Your task to perform on an android device: change timer sound Image 0: 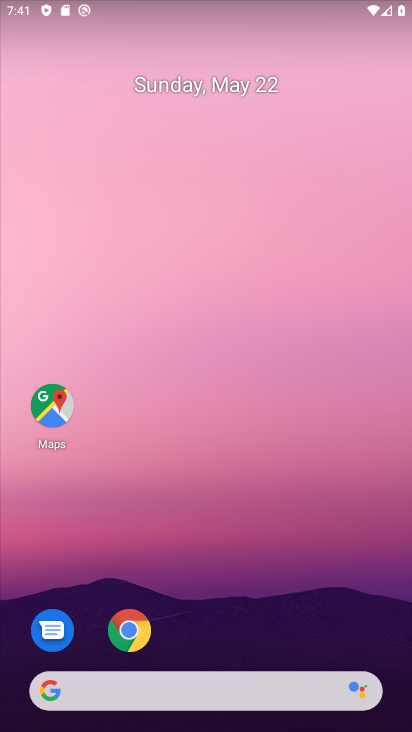
Step 0: drag from (261, 648) to (271, 153)
Your task to perform on an android device: change timer sound Image 1: 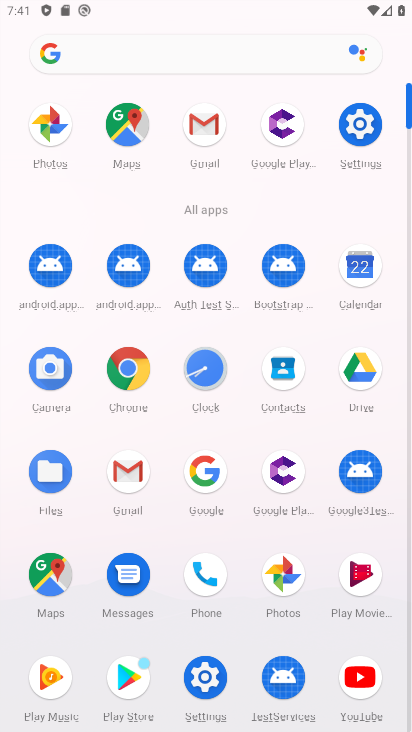
Step 1: click (370, 145)
Your task to perform on an android device: change timer sound Image 2: 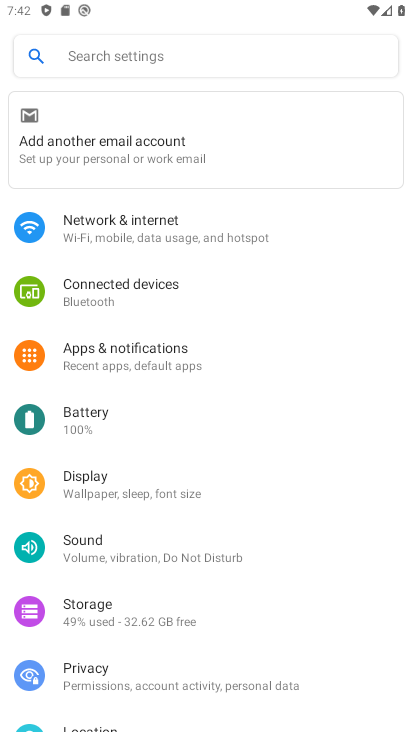
Step 2: press home button
Your task to perform on an android device: change timer sound Image 3: 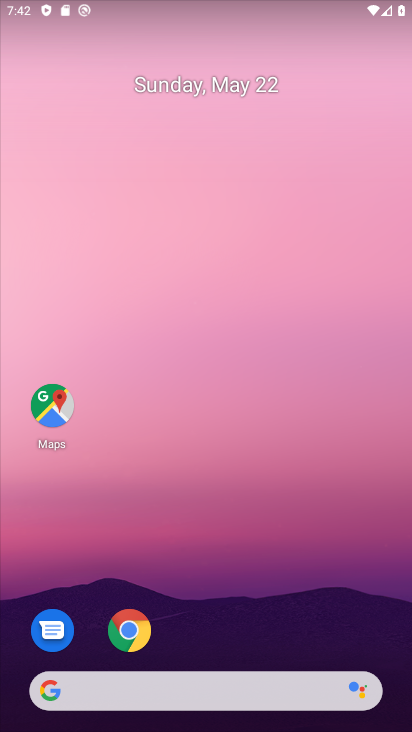
Step 3: drag from (221, 638) to (243, 52)
Your task to perform on an android device: change timer sound Image 4: 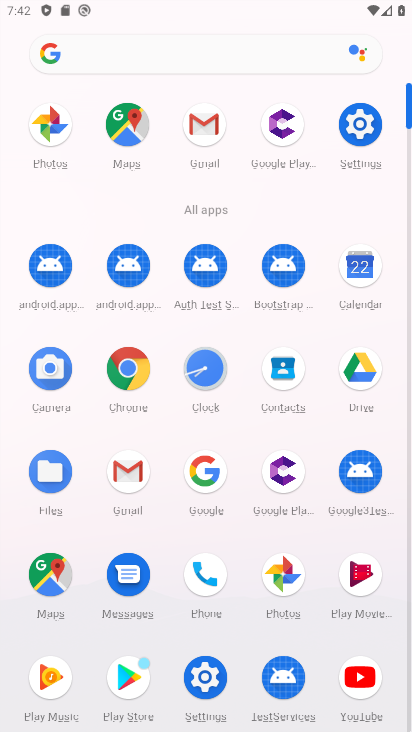
Step 4: click (374, 154)
Your task to perform on an android device: change timer sound Image 5: 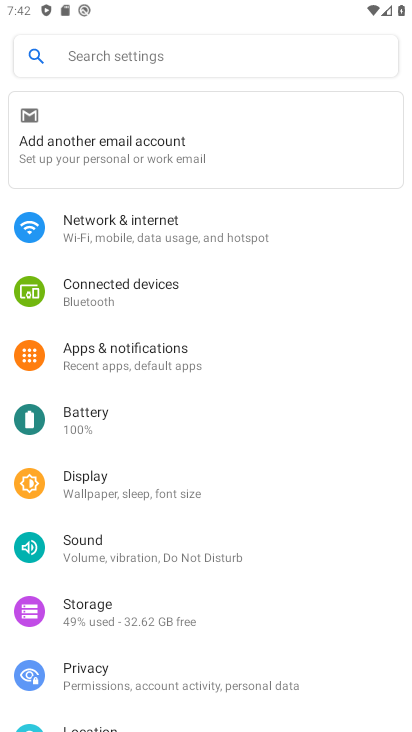
Step 5: press home button
Your task to perform on an android device: change timer sound Image 6: 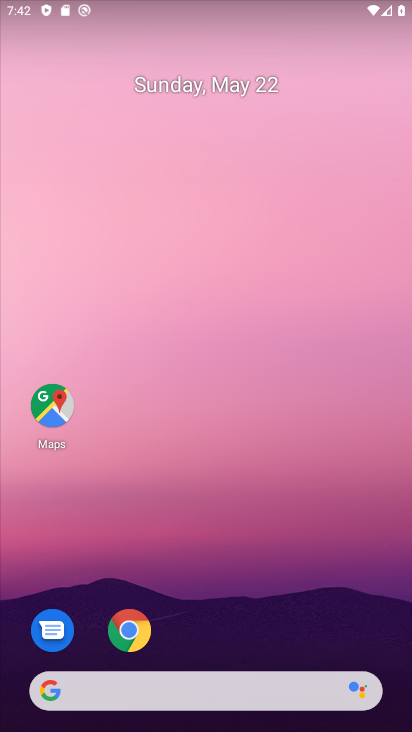
Step 6: drag from (239, 642) to (256, 83)
Your task to perform on an android device: change timer sound Image 7: 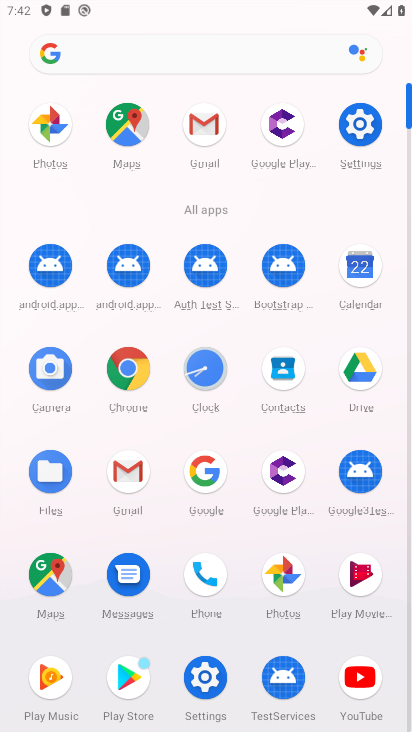
Step 7: click (211, 359)
Your task to perform on an android device: change timer sound Image 8: 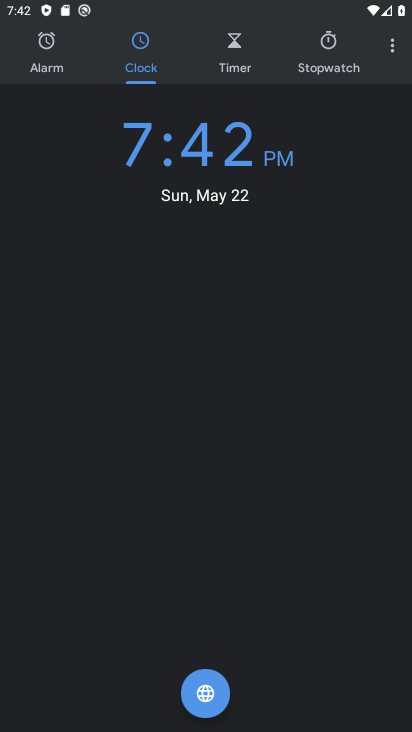
Step 8: click (394, 47)
Your task to perform on an android device: change timer sound Image 9: 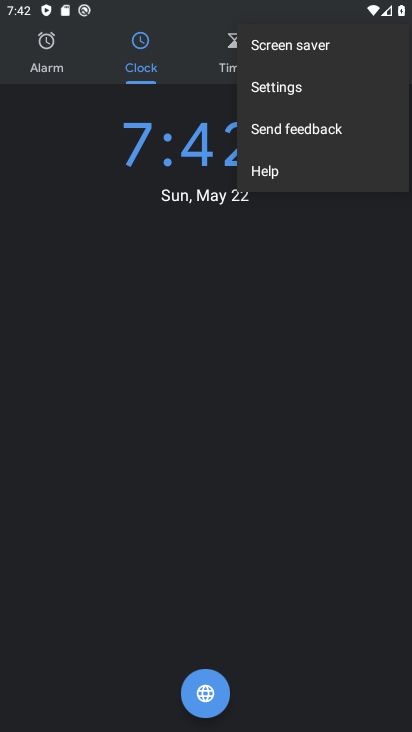
Step 9: click (323, 82)
Your task to perform on an android device: change timer sound Image 10: 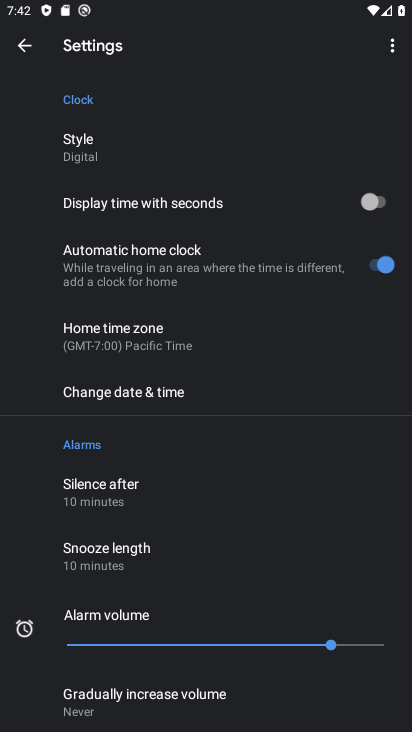
Step 10: click (209, 404)
Your task to perform on an android device: change timer sound Image 11: 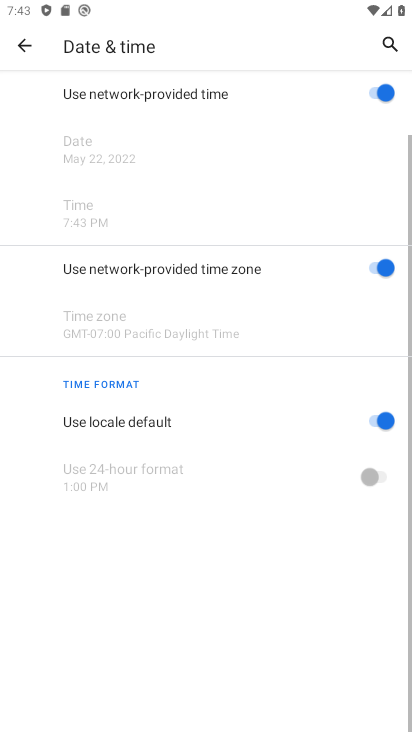
Step 11: click (10, 40)
Your task to perform on an android device: change timer sound Image 12: 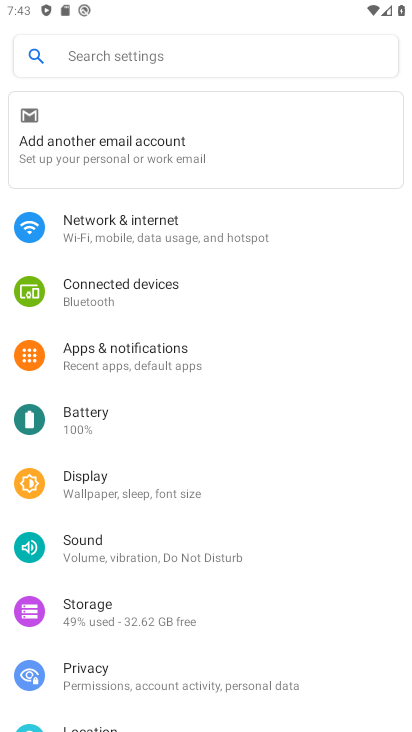
Step 12: task complete